Your task to perform on an android device: Go to CNN.com Image 0: 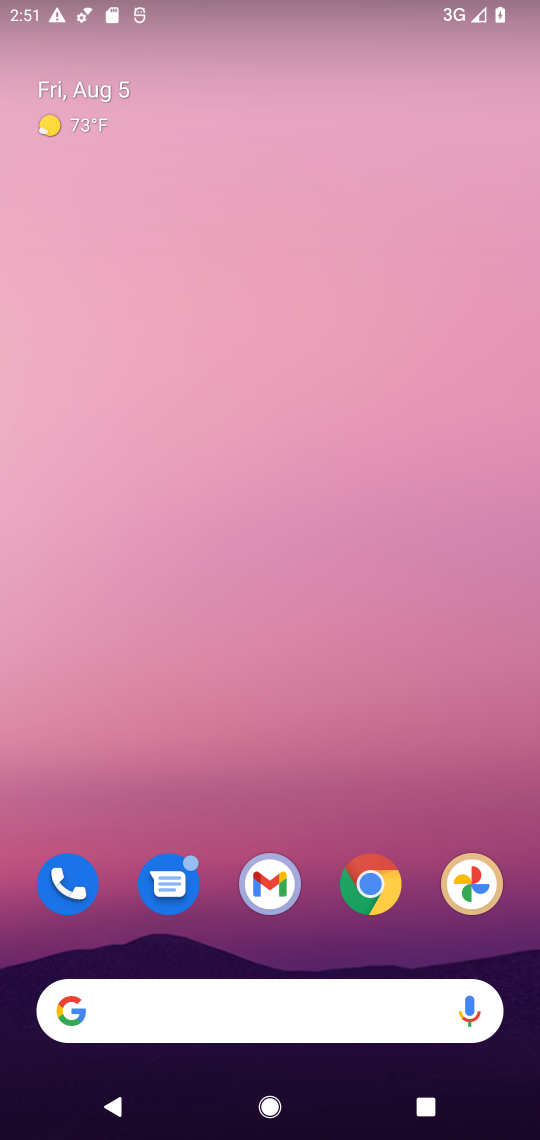
Step 0: drag from (505, 941) to (279, 18)
Your task to perform on an android device: Go to CNN.com Image 1: 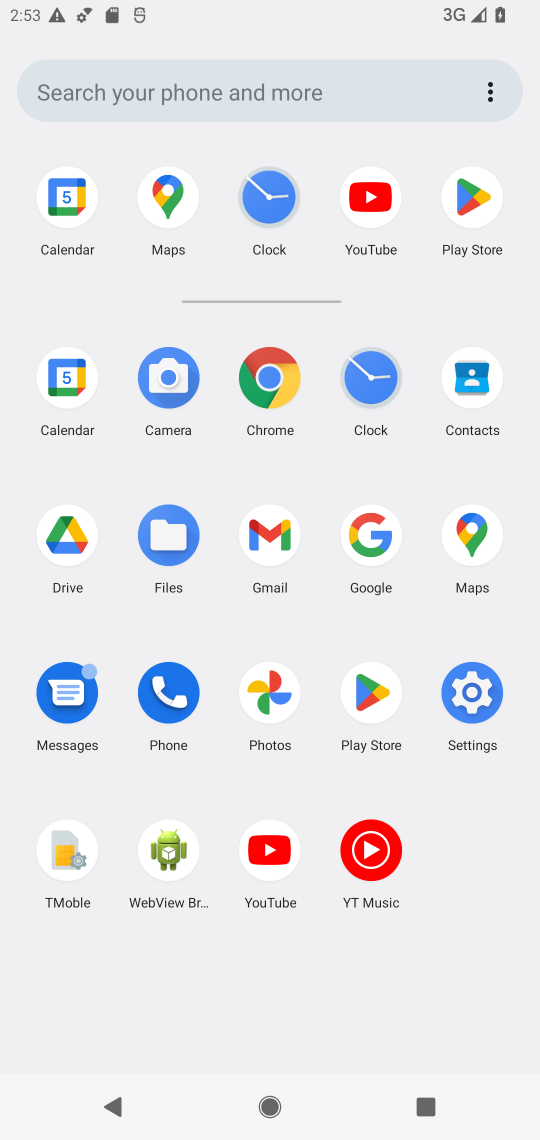
Step 1: click (382, 544)
Your task to perform on an android device: Go to CNN.com Image 2: 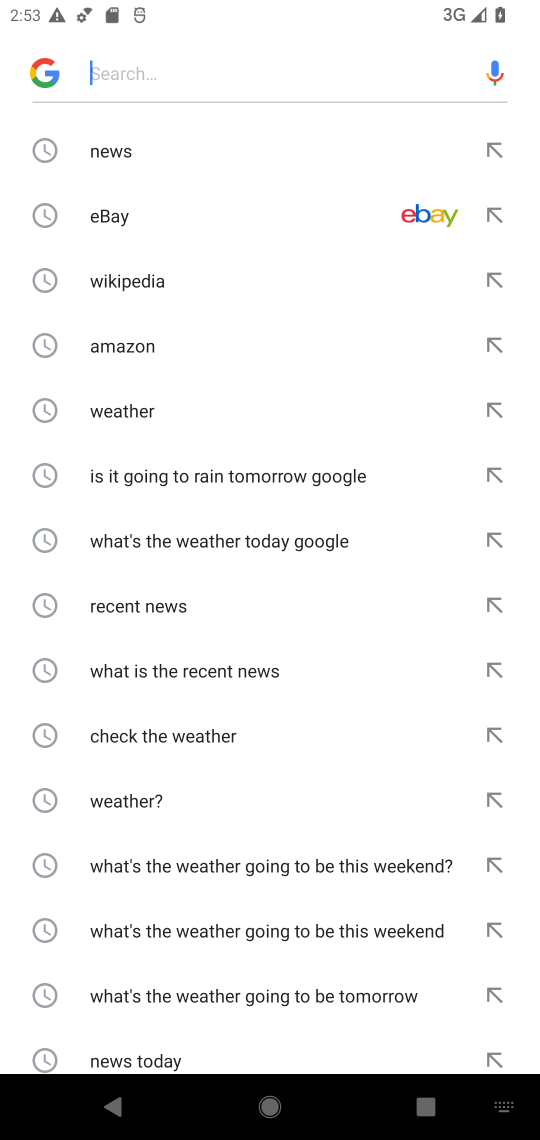
Step 2: type "CNN.com"
Your task to perform on an android device: Go to CNN.com Image 3: 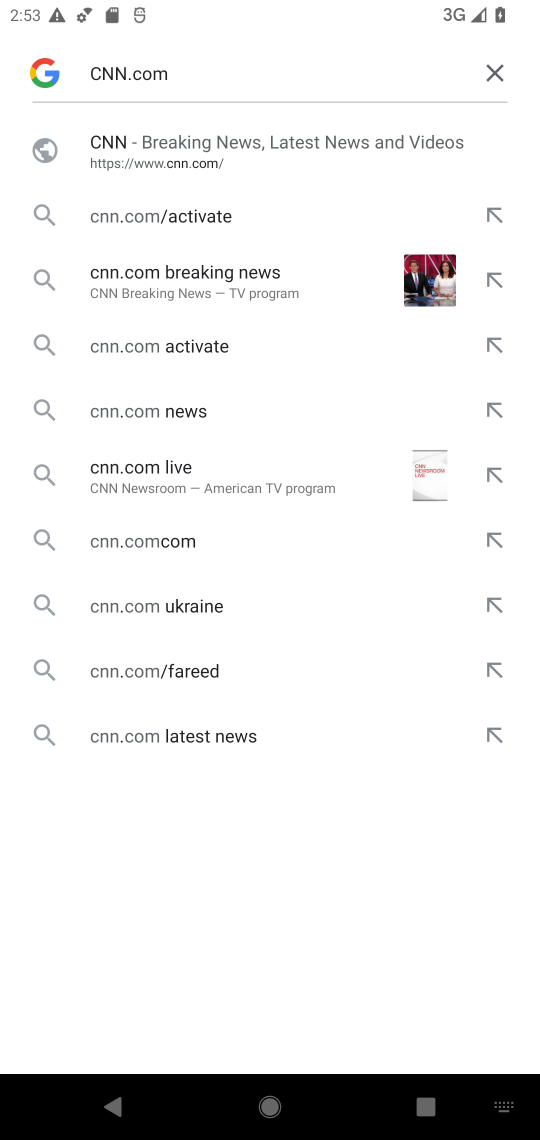
Step 3: click (315, 160)
Your task to perform on an android device: Go to CNN.com Image 4: 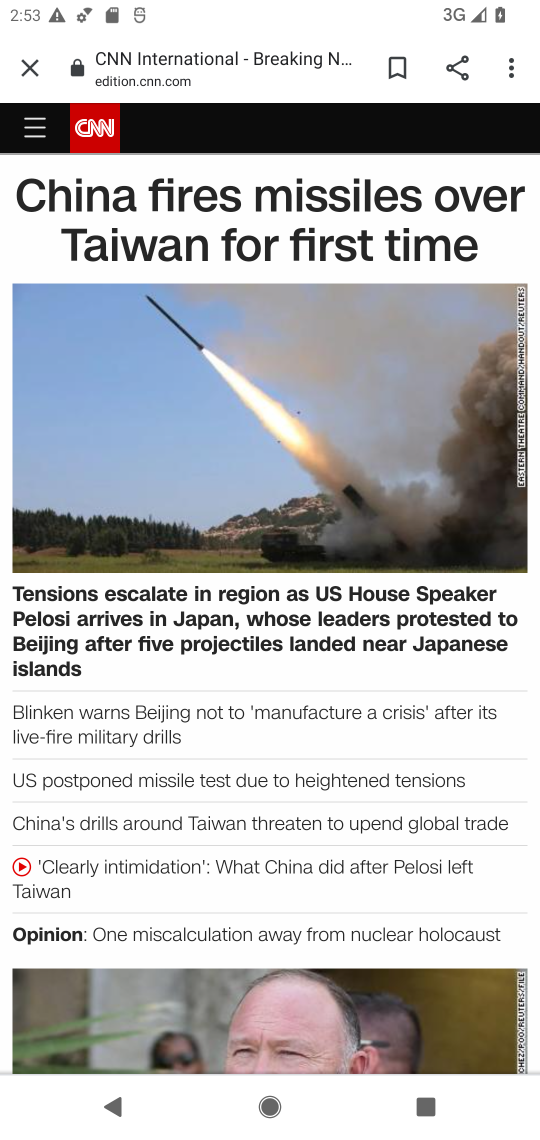
Step 4: task complete